Your task to perform on an android device: change notification settings in the gmail app Image 0: 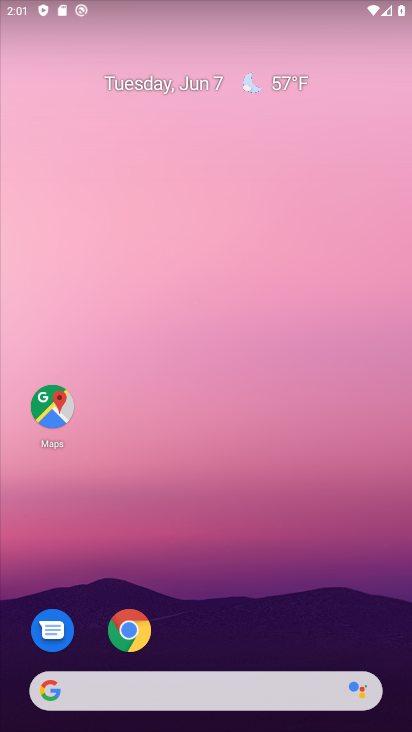
Step 0: drag from (385, 692) to (324, 64)
Your task to perform on an android device: change notification settings in the gmail app Image 1: 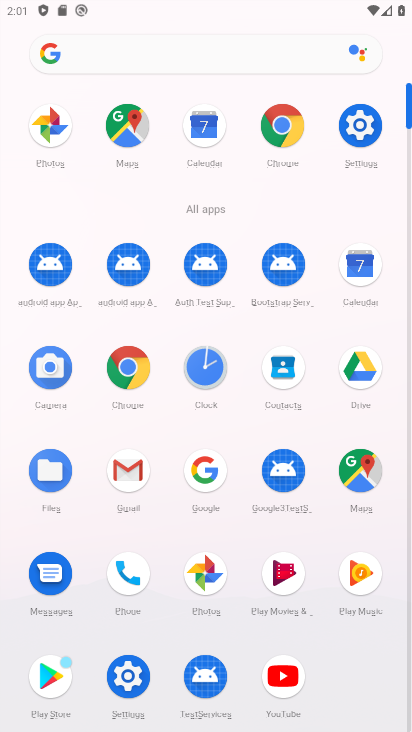
Step 1: click (128, 464)
Your task to perform on an android device: change notification settings in the gmail app Image 2: 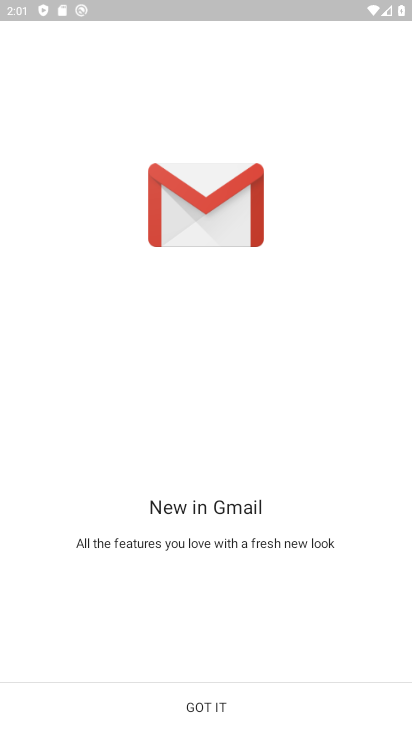
Step 2: click (209, 699)
Your task to perform on an android device: change notification settings in the gmail app Image 3: 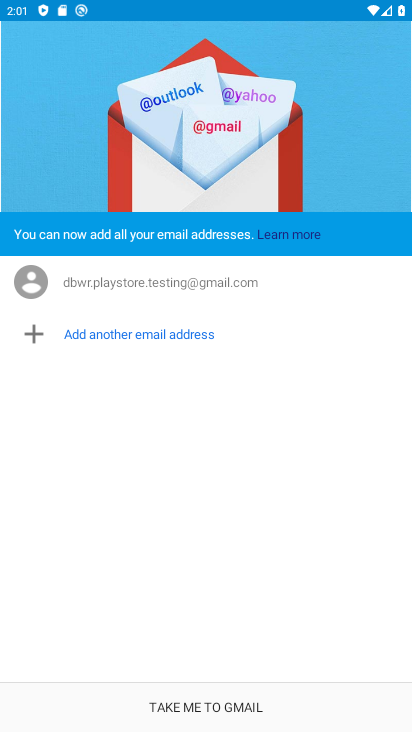
Step 3: click (211, 699)
Your task to perform on an android device: change notification settings in the gmail app Image 4: 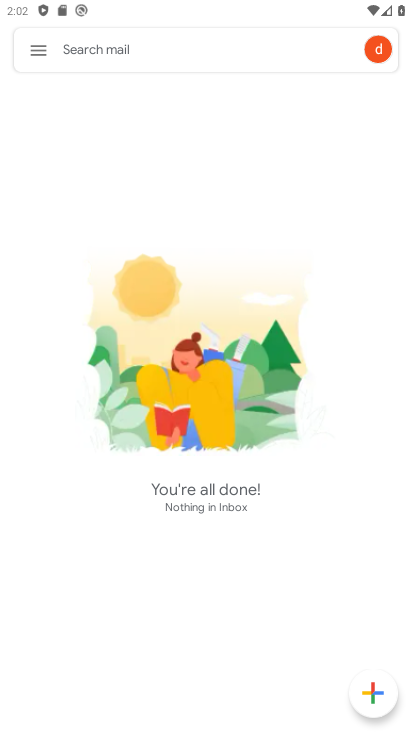
Step 4: click (33, 52)
Your task to perform on an android device: change notification settings in the gmail app Image 5: 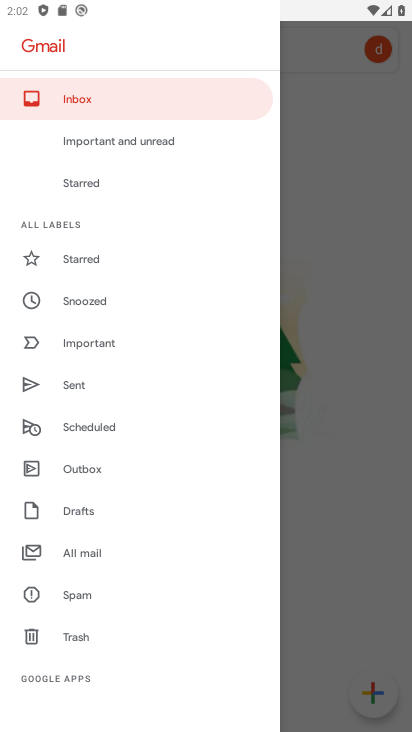
Step 5: drag from (172, 639) to (166, 259)
Your task to perform on an android device: change notification settings in the gmail app Image 6: 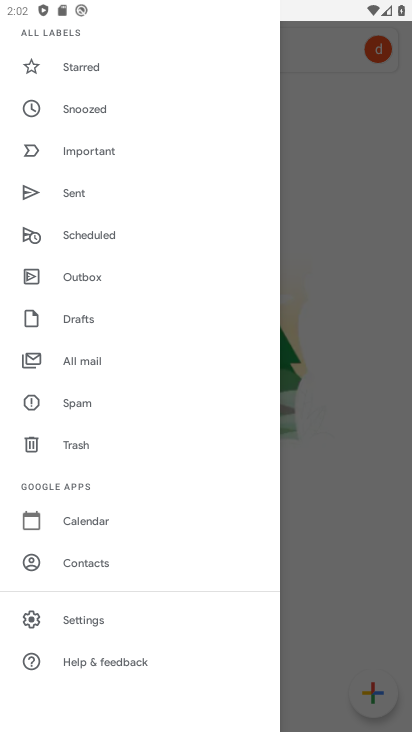
Step 6: click (84, 611)
Your task to perform on an android device: change notification settings in the gmail app Image 7: 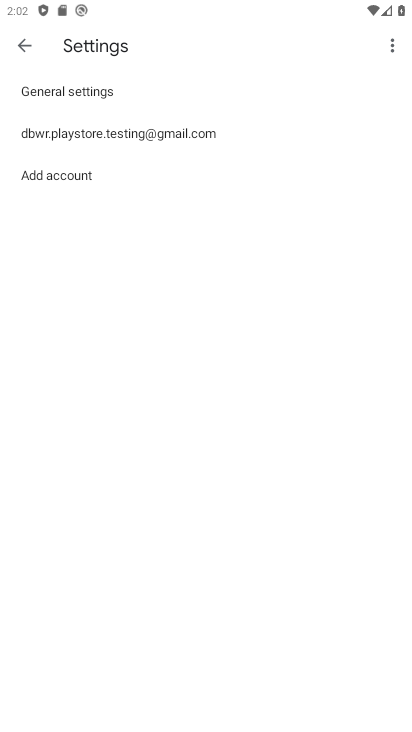
Step 7: click (88, 88)
Your task to perform on an android device: change notification settings in the gmail app Image 8: 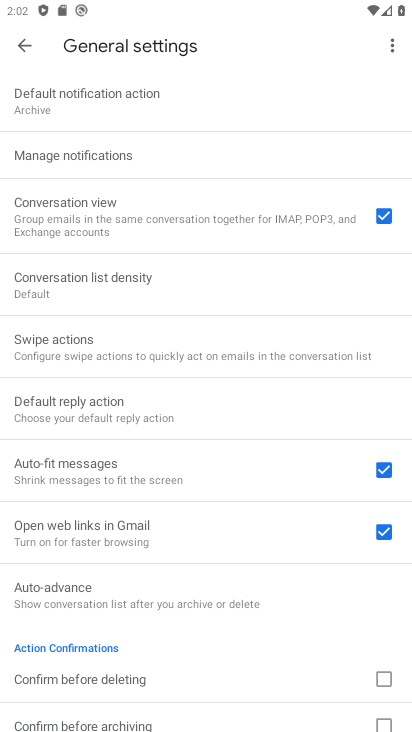
Step 8: click (90, 156)
Your task to perform on an android device: change notification settings in the gmail app Image 9: 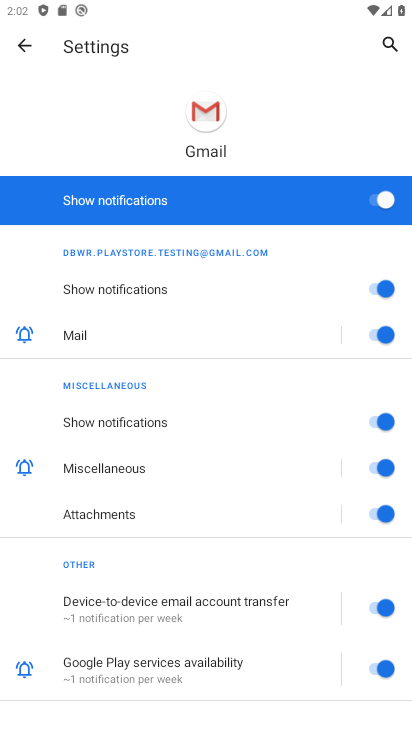
Step 9: click (372, 197)
Your task to perform on an android device: change notification settings in the gmail app Image 10: 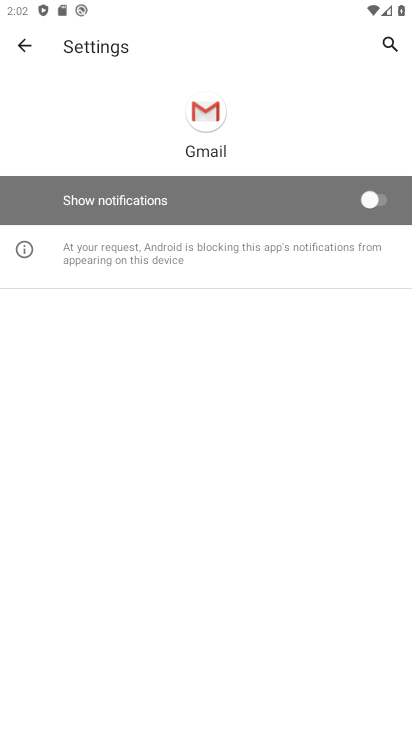
Step 10: task complete